Your task to perform on an android device: toggle javascript in the chrome app Image 0: 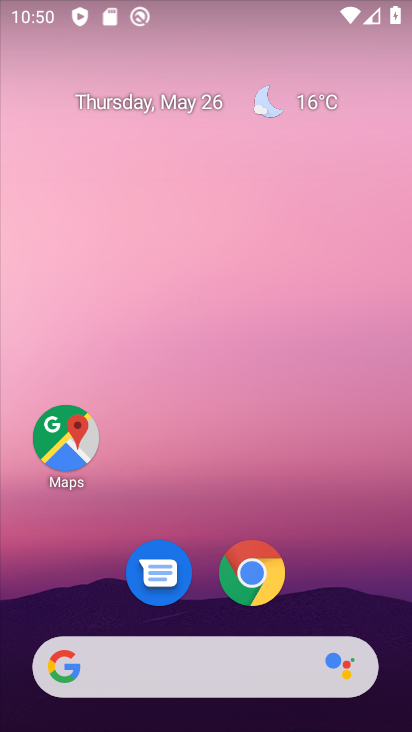
Step 0: click (260, 581)
Your task to perform on an android device: toggle javascript in the chrome app Image 1: 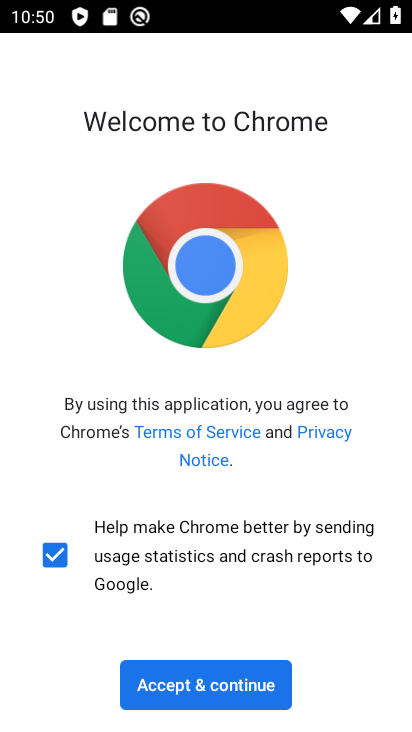
Step 1: click (227, 706)
Your task to perform on an android device: toggle javascript in the chrome app Image 2: 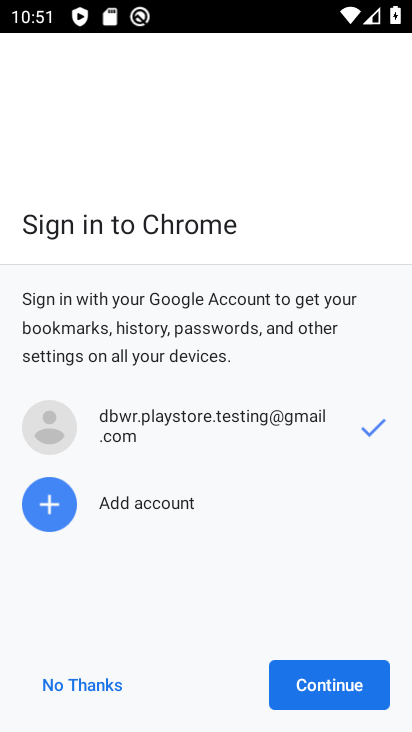
Step 2: click (304, 672)
Your task to perform on an android device: toggle javascript in the chrome app Image 3: 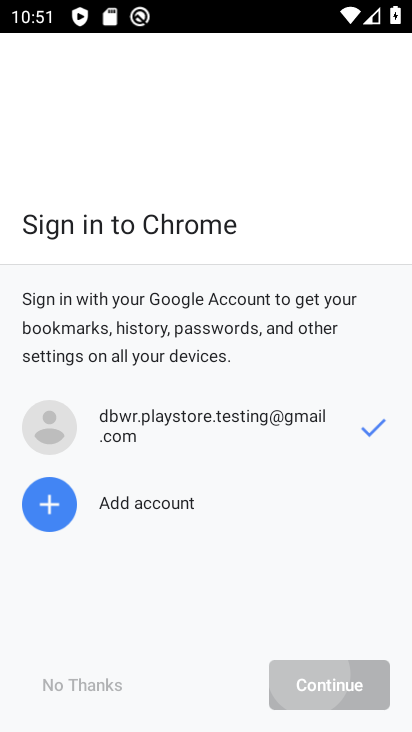
Step 3: click (304, 672)
Your task to perform on an android device: toggle javascript in the chrome app Image 4: 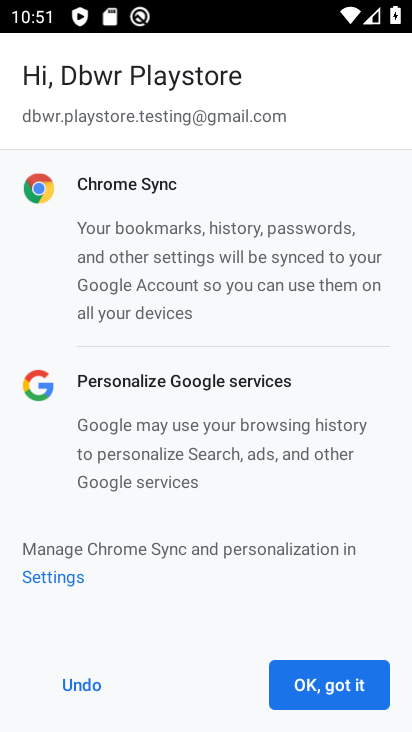
Step 4: click (340, 666)
Your task to perform on an android device: toggle javascript in the chrome app Image 5: 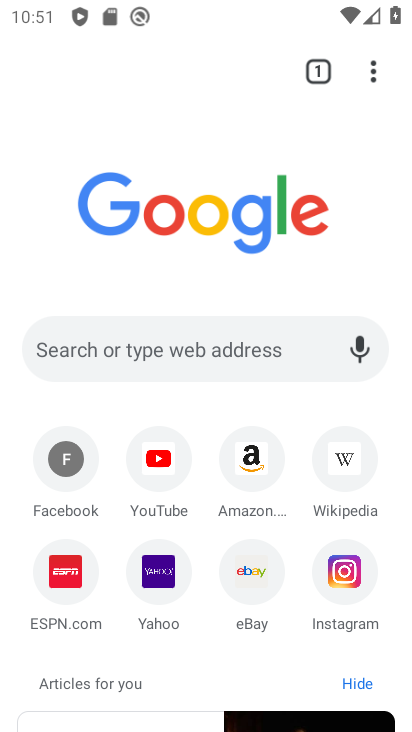
Step 5: click (371, 81)
Your task to perform on an android device: toggle javascript in the chrome app Image 6: 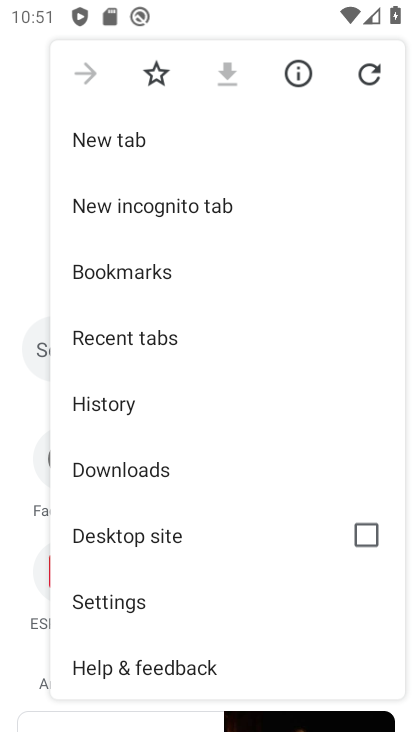
Step 6: click (213, 602)
Your task to perform on an android device: toggle javascript in the chrome app Image 7: 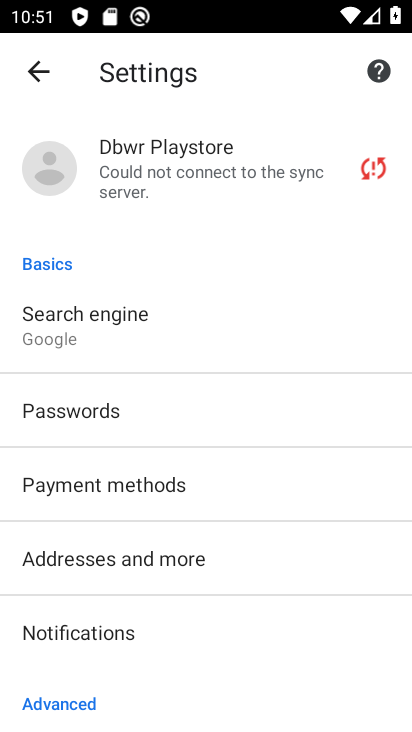
Step 7: drag from (235, 606) to (276, 345)
Your task to perform on an android device: toggle javascript in the chrome app Image 8: 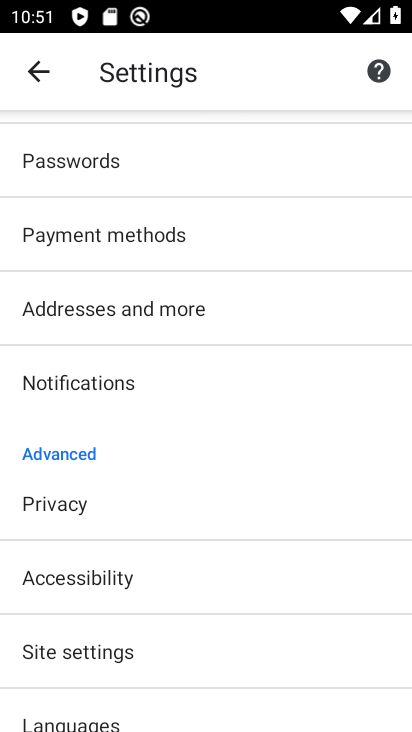
Step 8: drag from (168, 633) to (187, 455)
Your task to perform on an android device: toggle javascript in the chrome app Image 9: 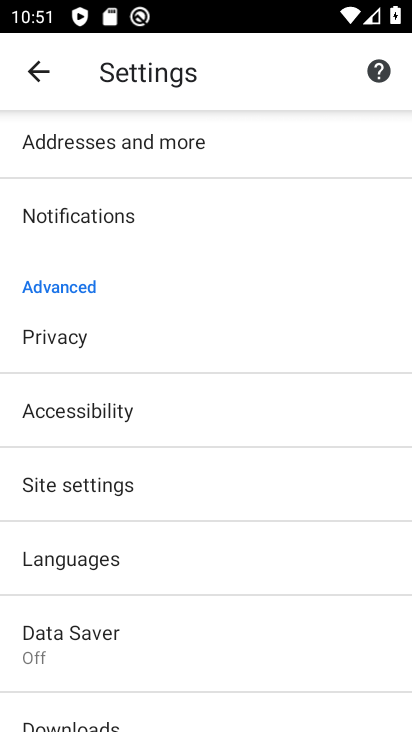
Step 9: click (166, 476)
Your task to perform on an android device: toggle javascript in the chrome app Image 10: 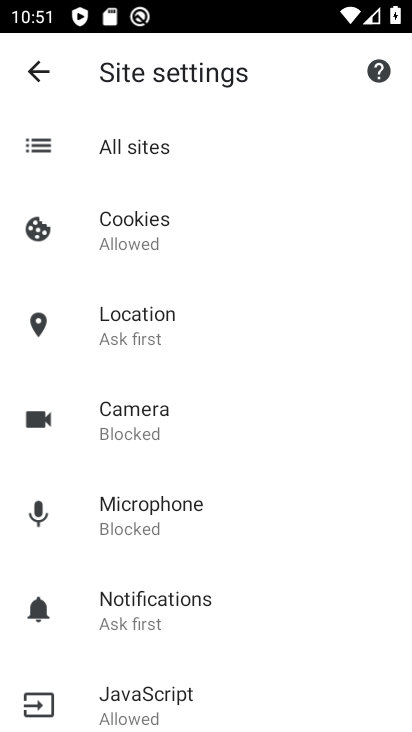
Step 10: drag from (197, 544) to (219, 456)
Your task to perform on an android device: toggle javascript in the chrome app Image 11: 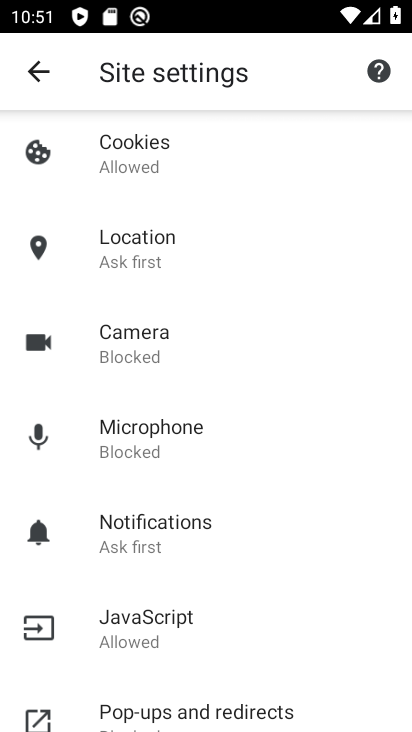
Step 11: click (134, 634)
Your task to perform on an android device: toggle javascript in the chrome app Image 12: 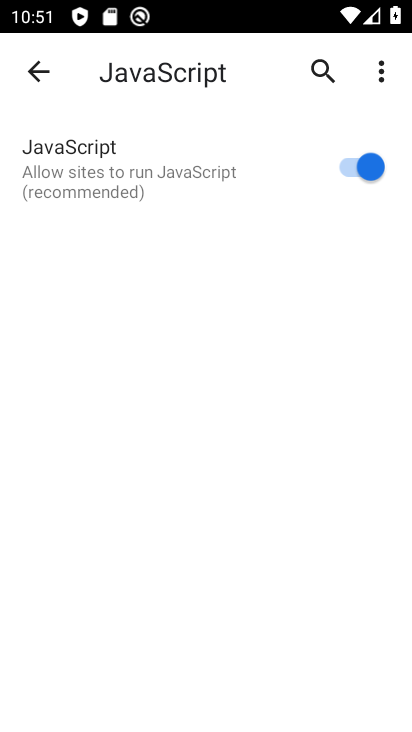
Step 12: click (381, 177)
Your task to perform on an android device: toggle javascript in the chrome app Image 13: 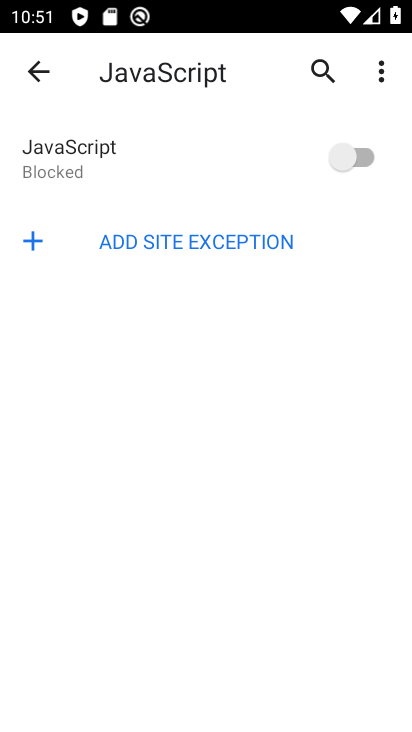
Step 13: task complete